Your task to perform on an android device: Open Google Image 0: 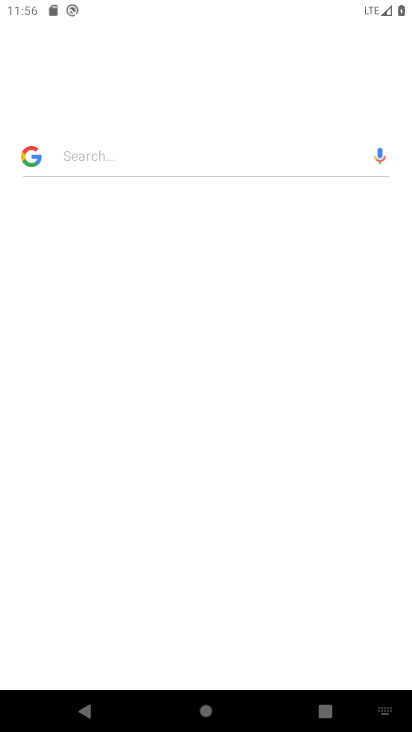
Step 0: drag from (206, 348) to (187, 67)
Your task to perform on an android device: Open Google Image 1: 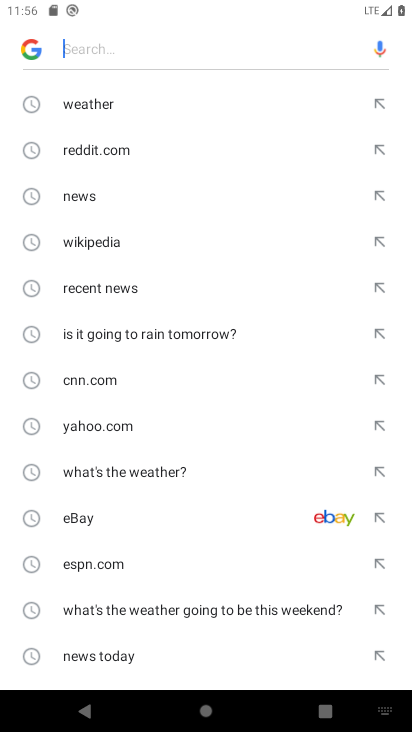
Step 1: click (117, 45)
Your task to perform on an android device: Open Google Image 2: 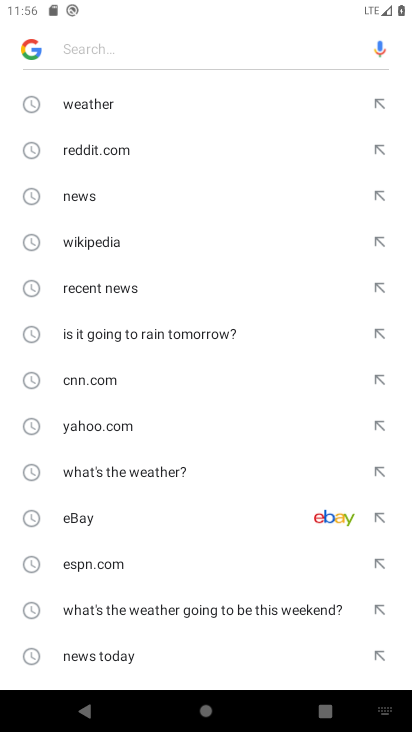
Step 2: click (33, 46)
Your task to perform on an android device: Open Google Image 3: 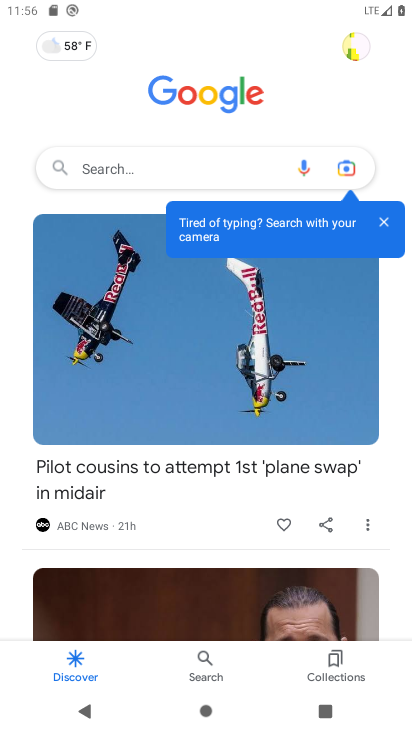
Step 3: task complete